Your task to perform on an android device: set the stopwatch Image 0: 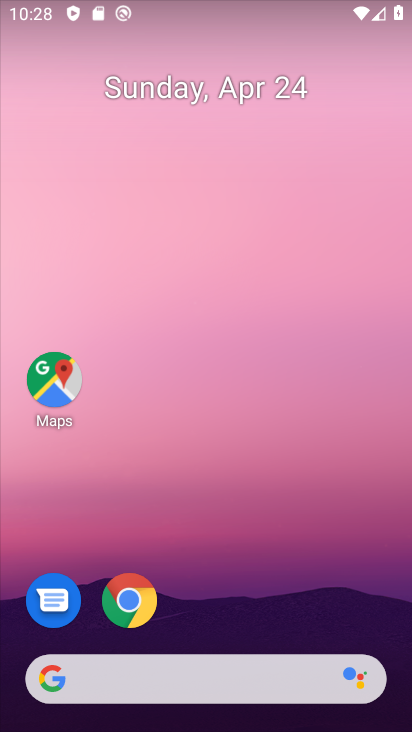
Step 0: drag from (259, 593) to (201, 37)
Your task to perform on an android device: set the stopwatch Image 1: 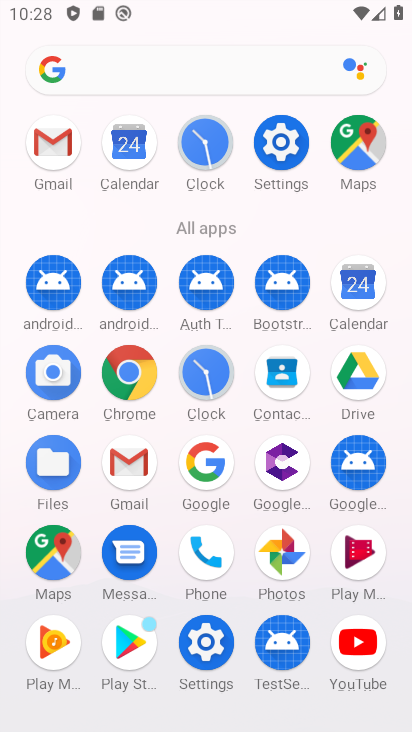
Step 1: click (215, 363)
Your task to perform on an android device: set the stopwatch Image 2: 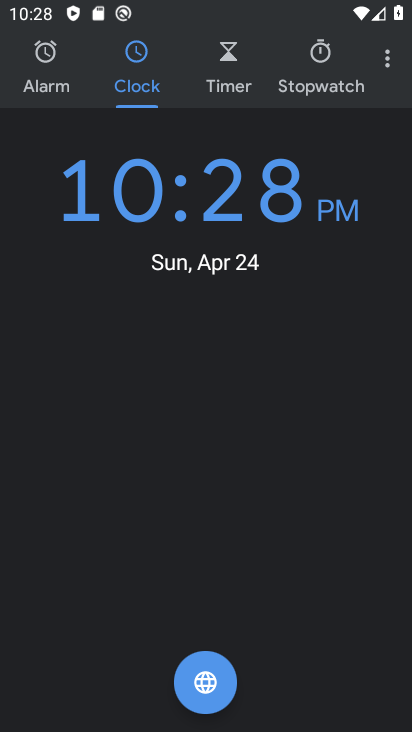
Step 2: click (315, 49)
Your task to perform on an android device: set the stopwatch Image 3: 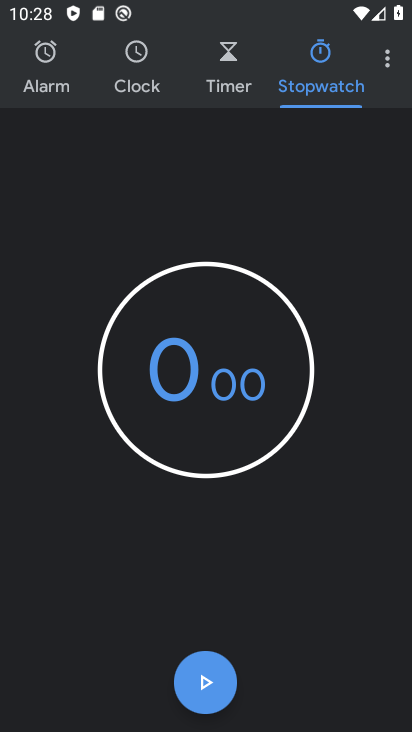
Step 3: task complete